Your task to perform on an android device: change notification settings in the gmail app Image 0: 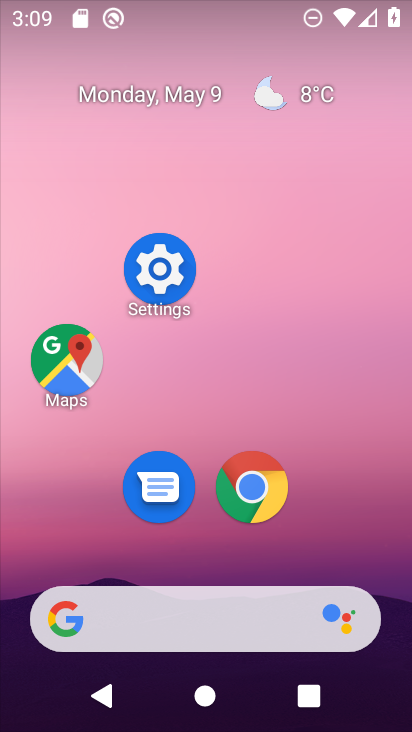
Step 0: drag from (346, 559) to (296, 81)
Your task to perform on an android device: change notification settings in the gmail app Image 1: 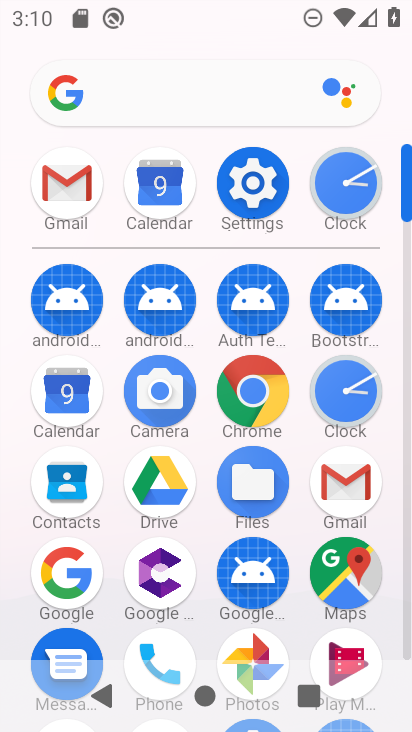
Step 1: click (330, 487)
Your task to perform on an android device: change notification settings in the gmail app Image 2: 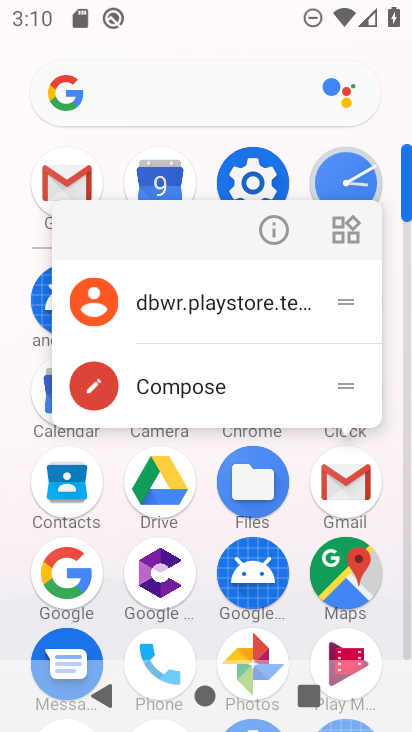
Step 2: click (272, 237)
Your task to perform on an android device: change notification settings in the gmail app Image 3: 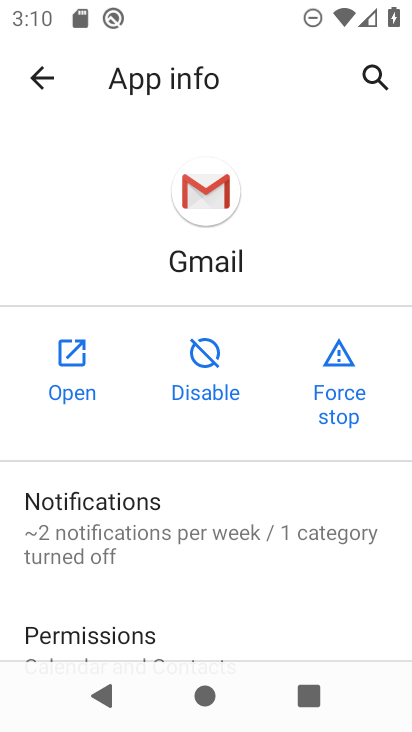
Step 3: click (220, 511)
Your task to perform on an android device: change notification settings in the gmail app Image 4: 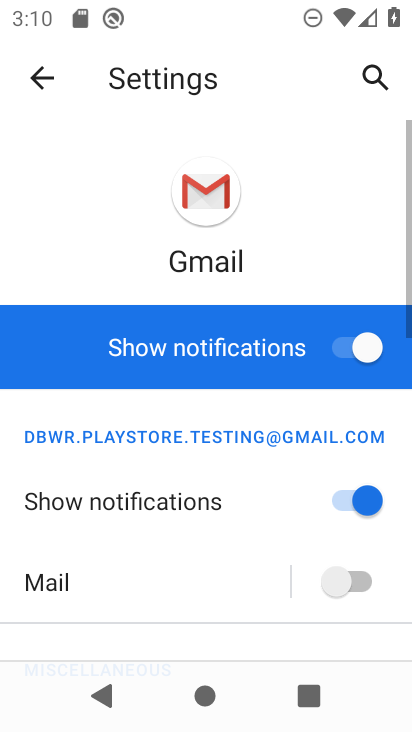
Step 4: click (349, 338)
Your task to perform on an android device: change notification settings in the gmail app Image 5: 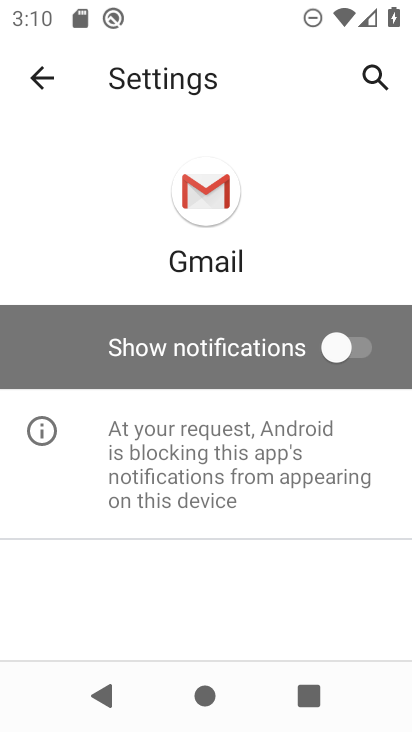
Step 5: task complete